Your task to perform on an android device: add a label to a message in the gmail app Image 0: 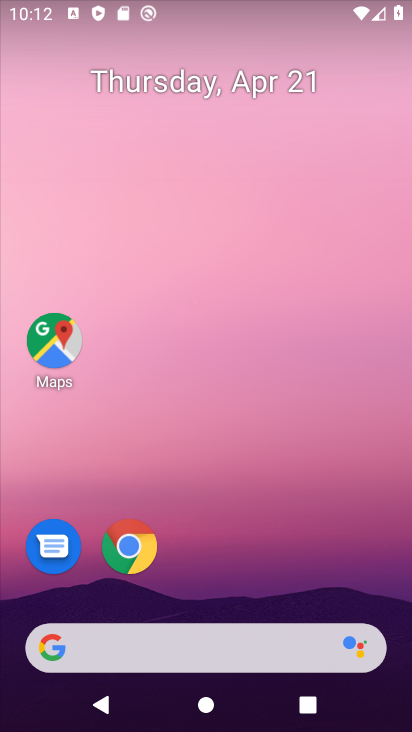
Step 0: drag from (395, 611) to (338, 96)
Your task to perform on an android device: add a label to a message in the gmail app Image 1: 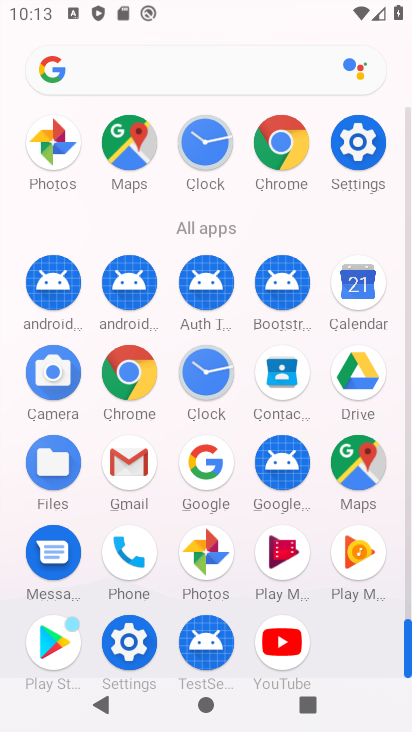
Step 1: click (128, 465)
Your task to perform on an android device: add a label to a message in the gmail app Image 2: 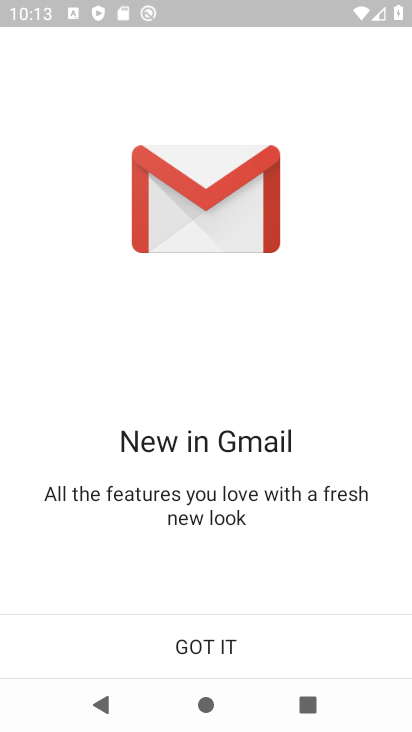
Step 2: click (206, 652)
Your task to perform on an android device: add a label to a message in the gmail app Image 3: 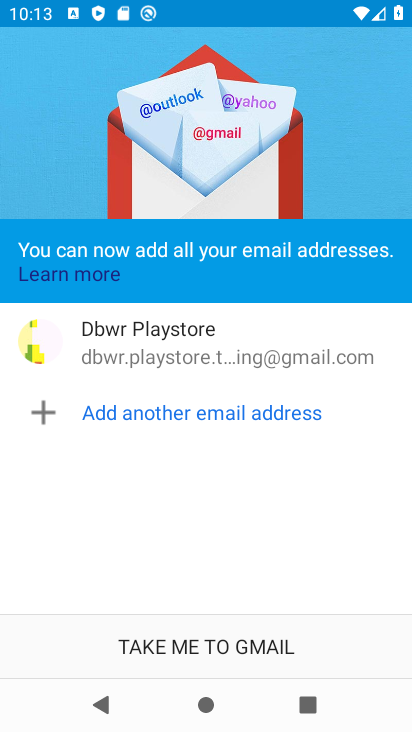
Step 3: click (206, 652)
Your task to perform on an android device: add a label to a message in the gmail app Image 4: 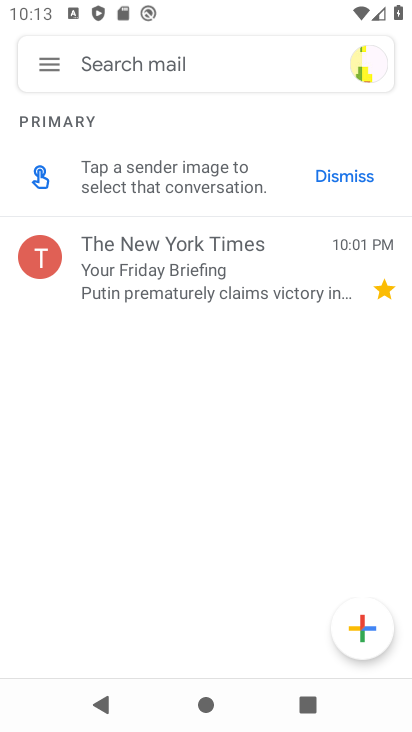
Step 4: click (47, 59)
Your task to perform on an android device: add a label to a message in the gmail app Image 5: 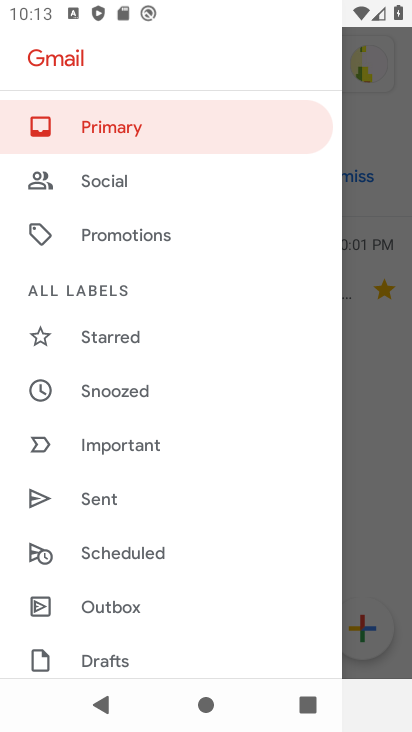
Step 5: click (125, 113)
Your task to perform on an android device: add a label to a message in the gmail app Image 6: 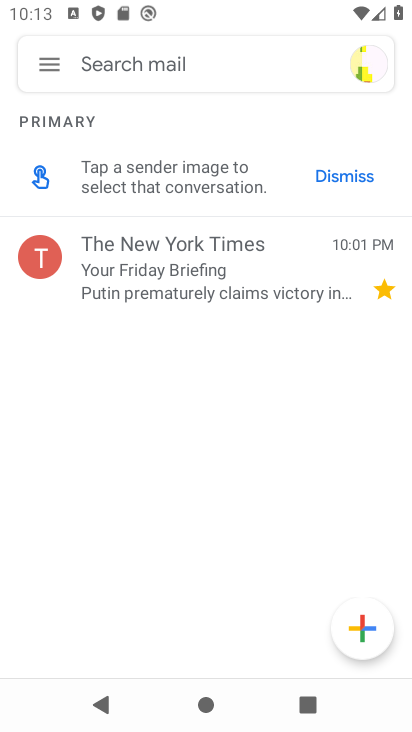
Step 6: click (150, 284)
Your task to perform on an android device: add a label to a message in the gmail app Image 7: 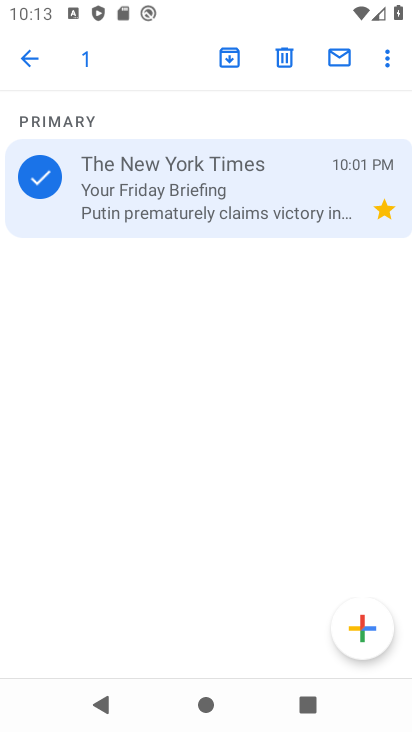
Step 7: click (386, 56)
Your task to perform on an android device: add a label to a message in the gmail app Image 8: 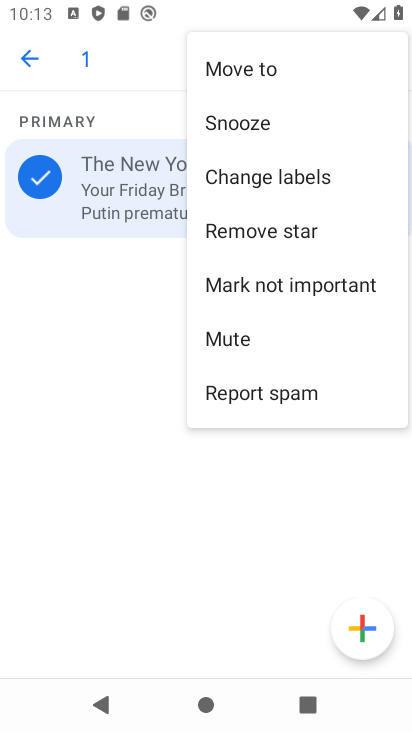
Step 8: click (249, 171)
Your task to perform on an android device: add a label to a message in the gmail app Image 9: 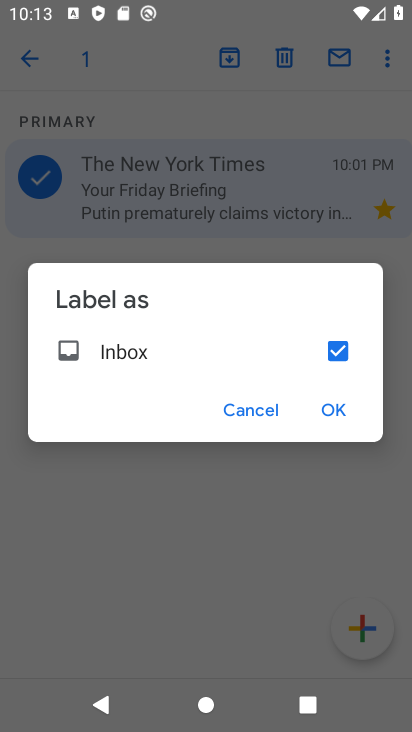
Step 9: click (339, 413)
Your task to perform on an android device: add a label to a message in the gmail app Image 10: 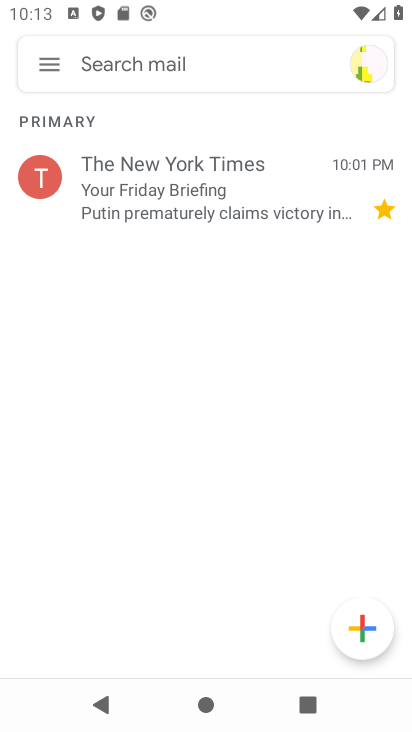
Step 10: task complete